Your task to perform on an android device: Add "razer deathadder" to the cart on newegg.com Image 0: 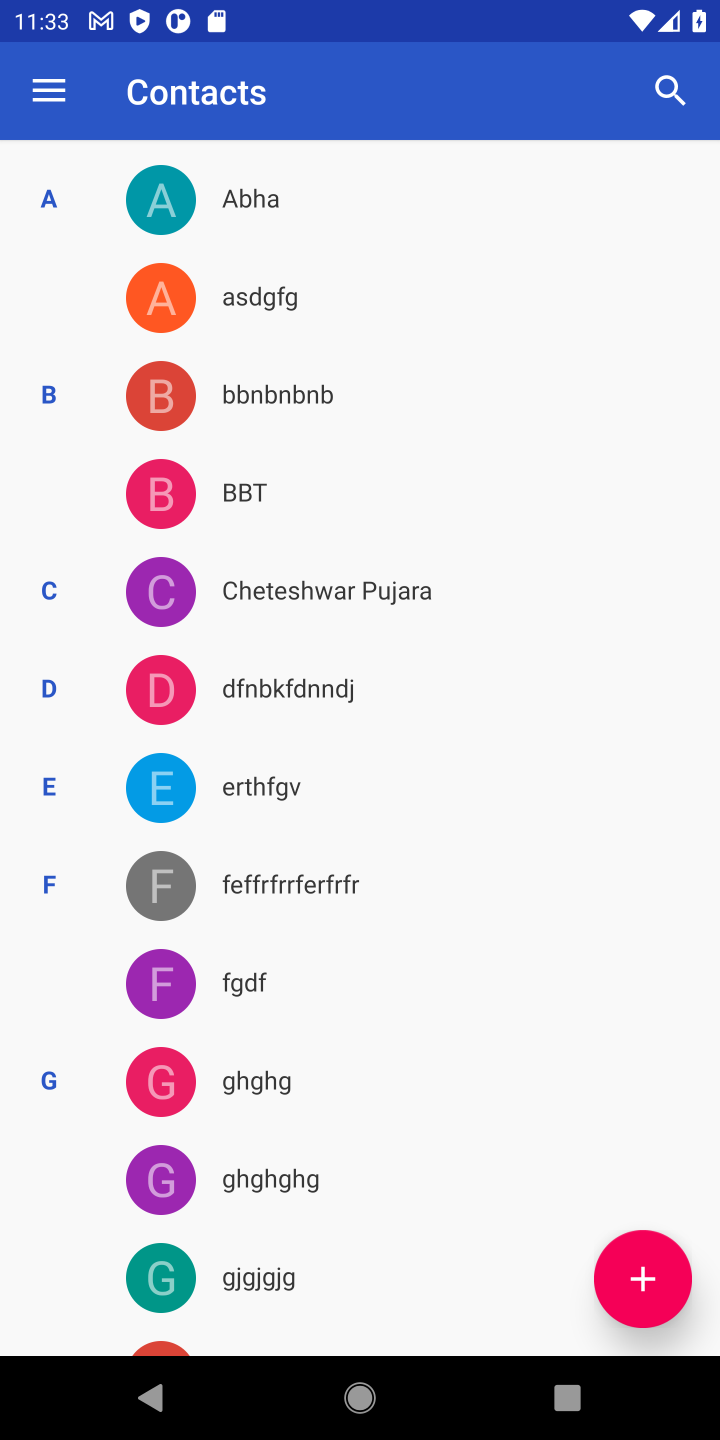
Step 0: press home button
Your task to perform on an android device: Add "razer deathadder" to the cart on newegg.com Image 1: 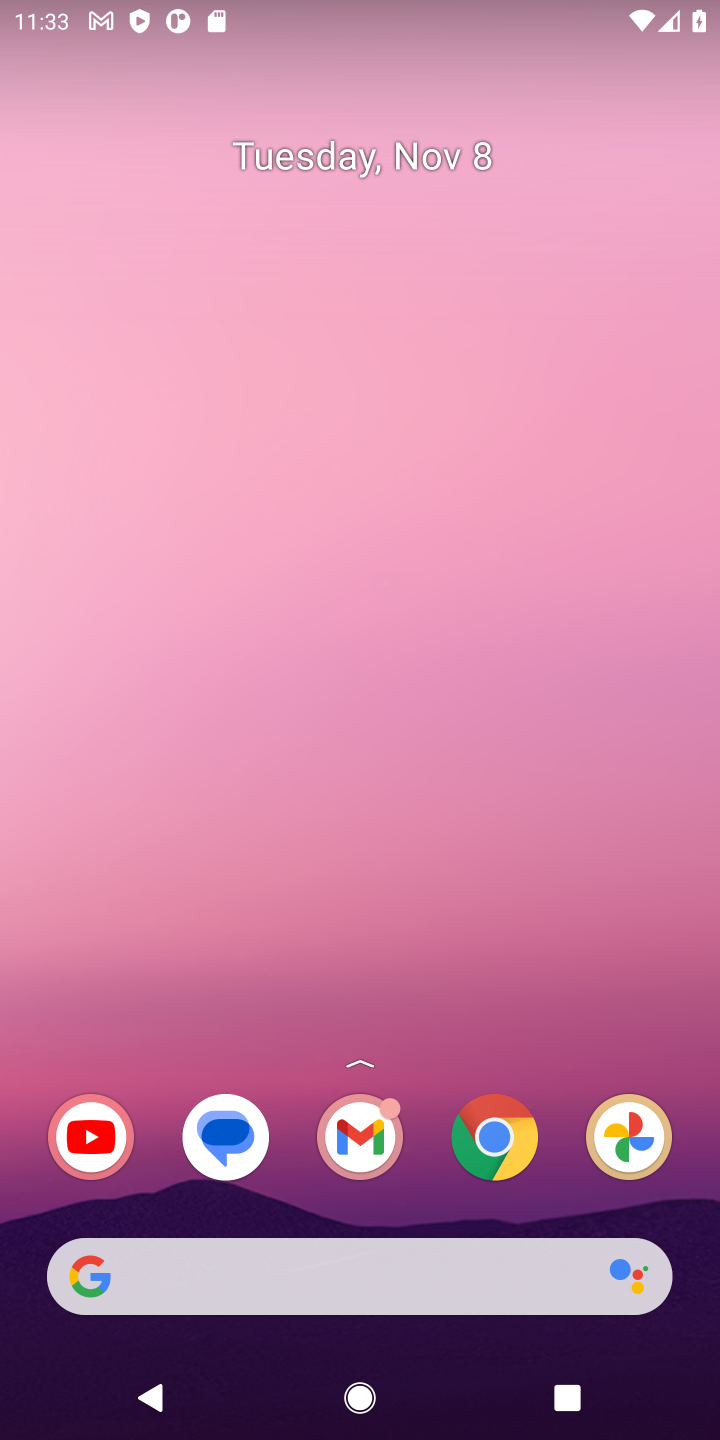
Step 1: click (496, 1141)
Your task to perform on an android device: Add "razer deathadder" to the cart on newegg.com Image 2: 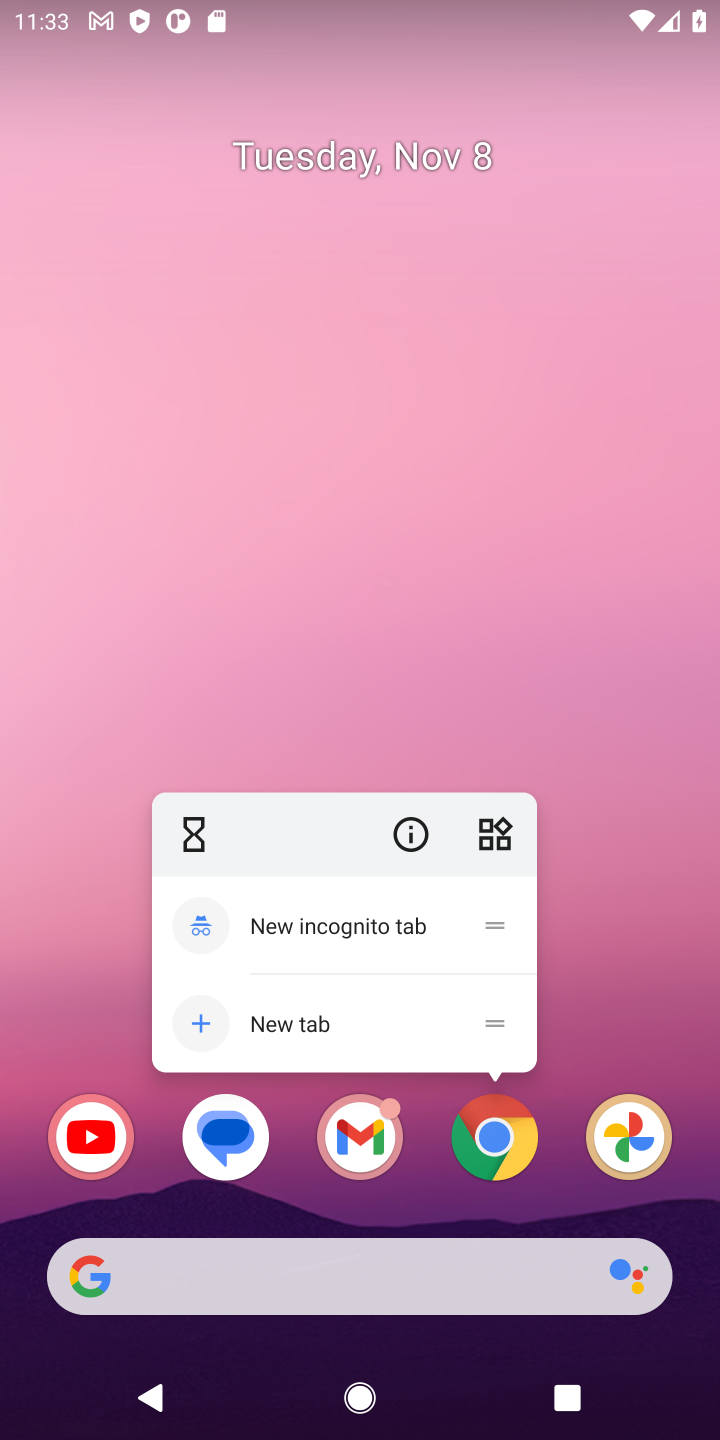
Step 2: click (496, 1141)
Your task to perform on an android device: Add "razer deathadder" to the cart on newegg.com Image 3: 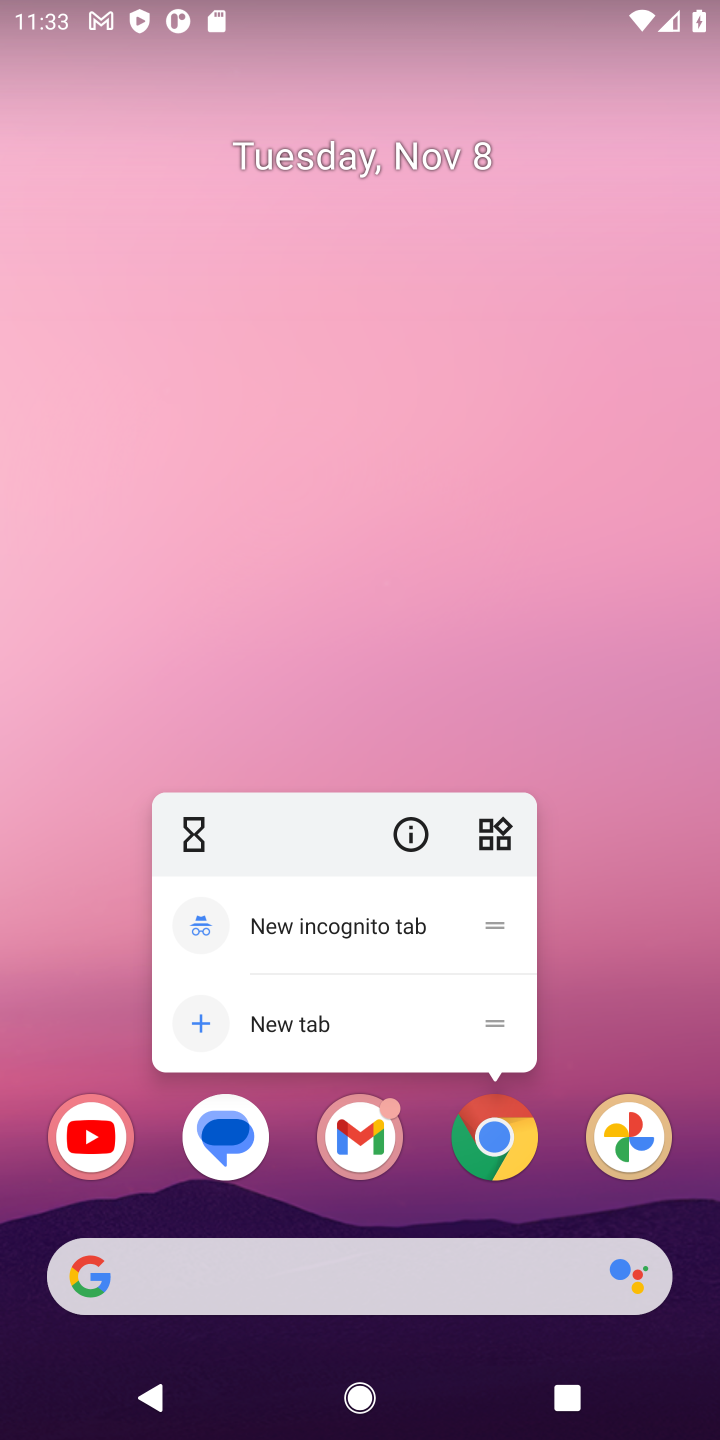
Step 3: click (496, 1136)
Your task to perform on an android device: Add "razer deathadder" to the cart on newegg.com Image 4: 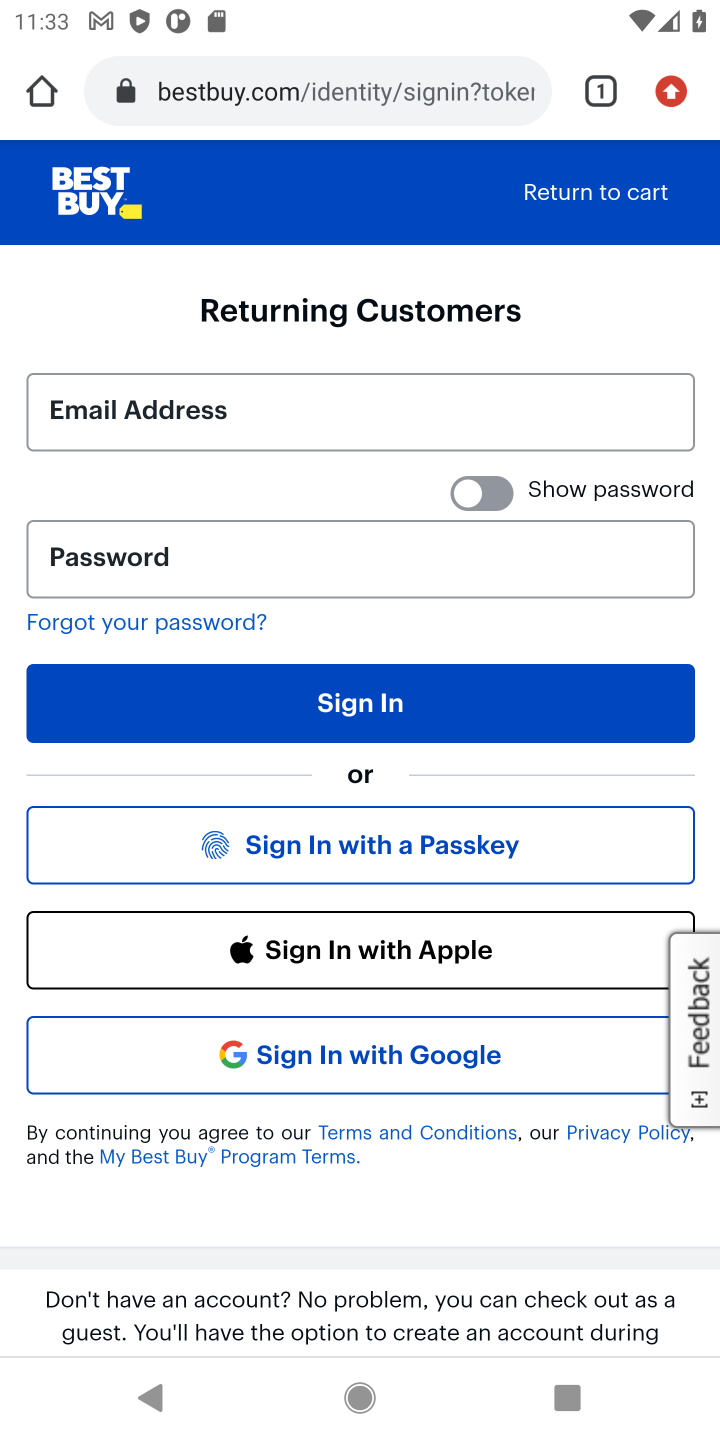
Step 4: click (333, 96)
Your task to perform on an android device: Add "razer deathadder" to the cart on newegg.com Image 5: 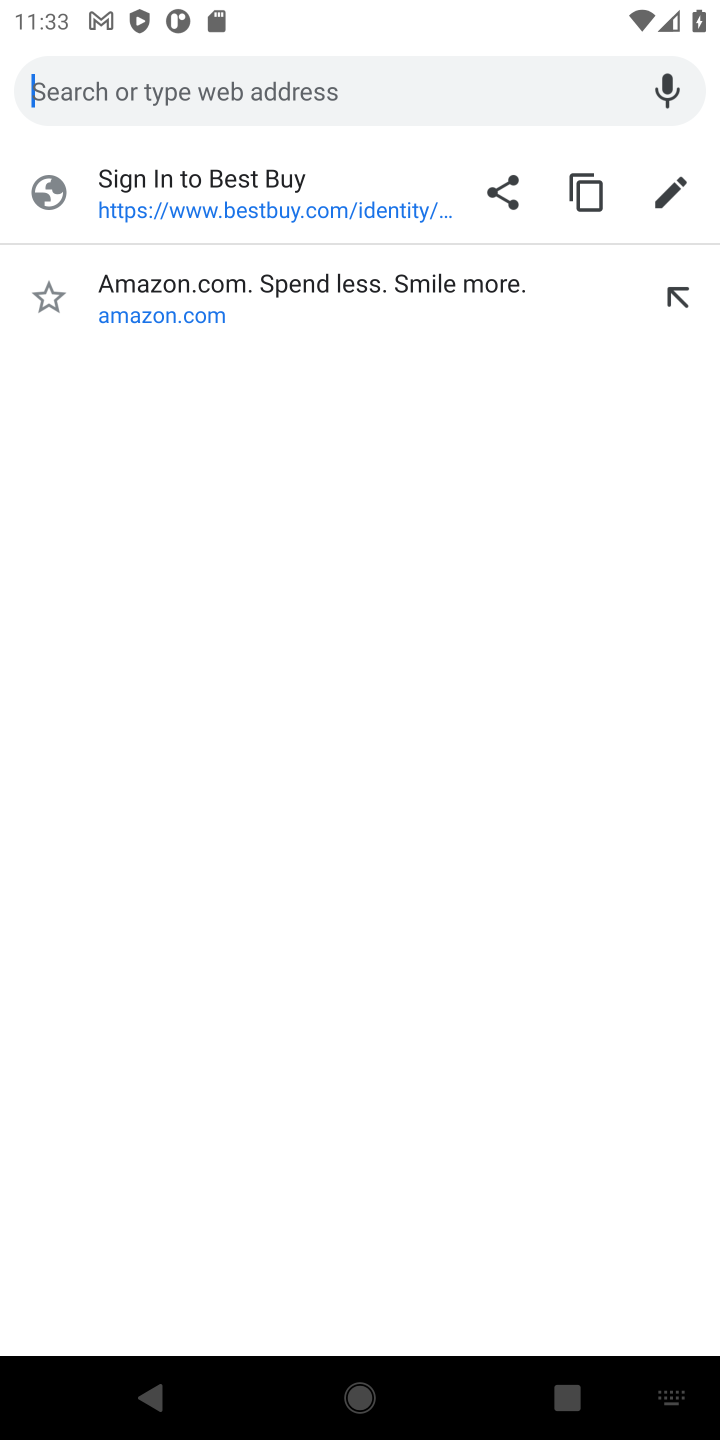
Step 5: type "newegg"
Your task to perform on an android device: Add "razer deathadder" to the cart on newegg.com Image 6: 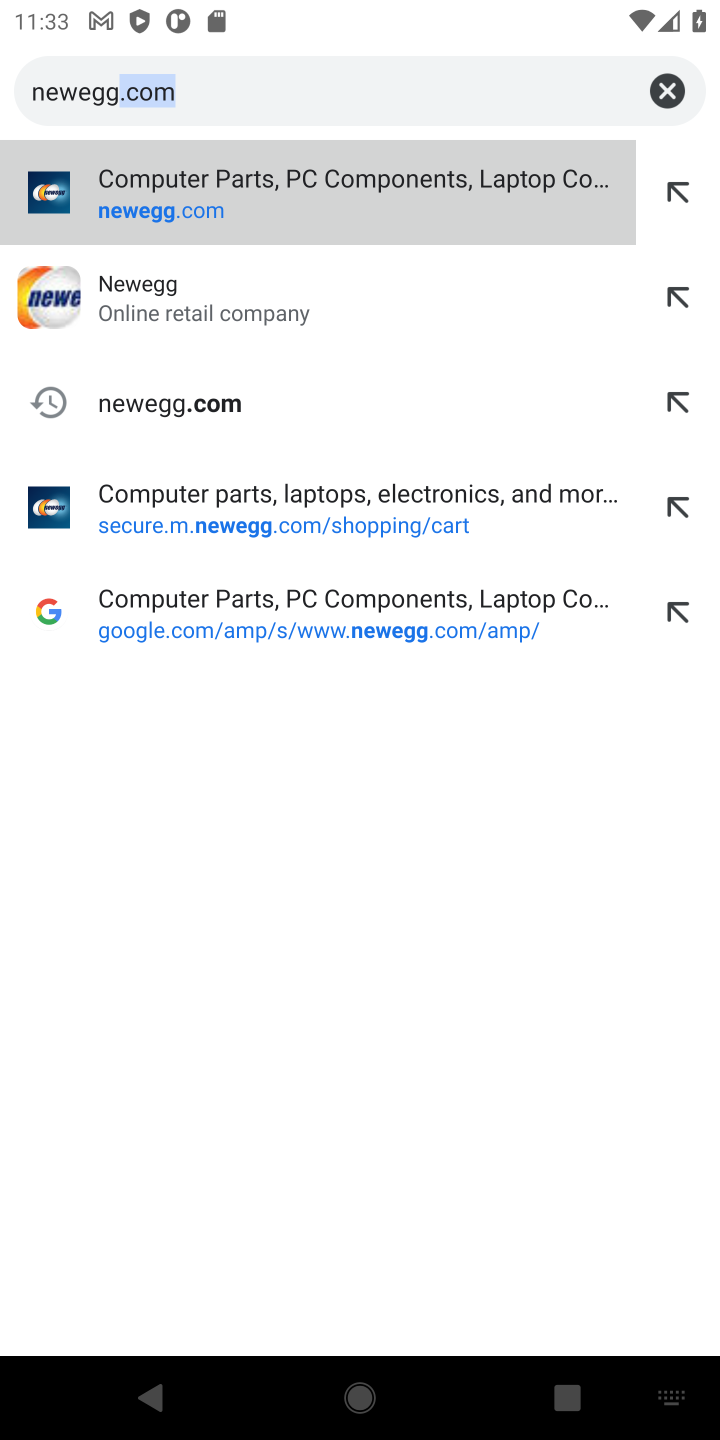
Step 6: click (225, 323)
Your task to perform on an android device: Add "razer deathadder" to the cart on newegg.com Image 7: 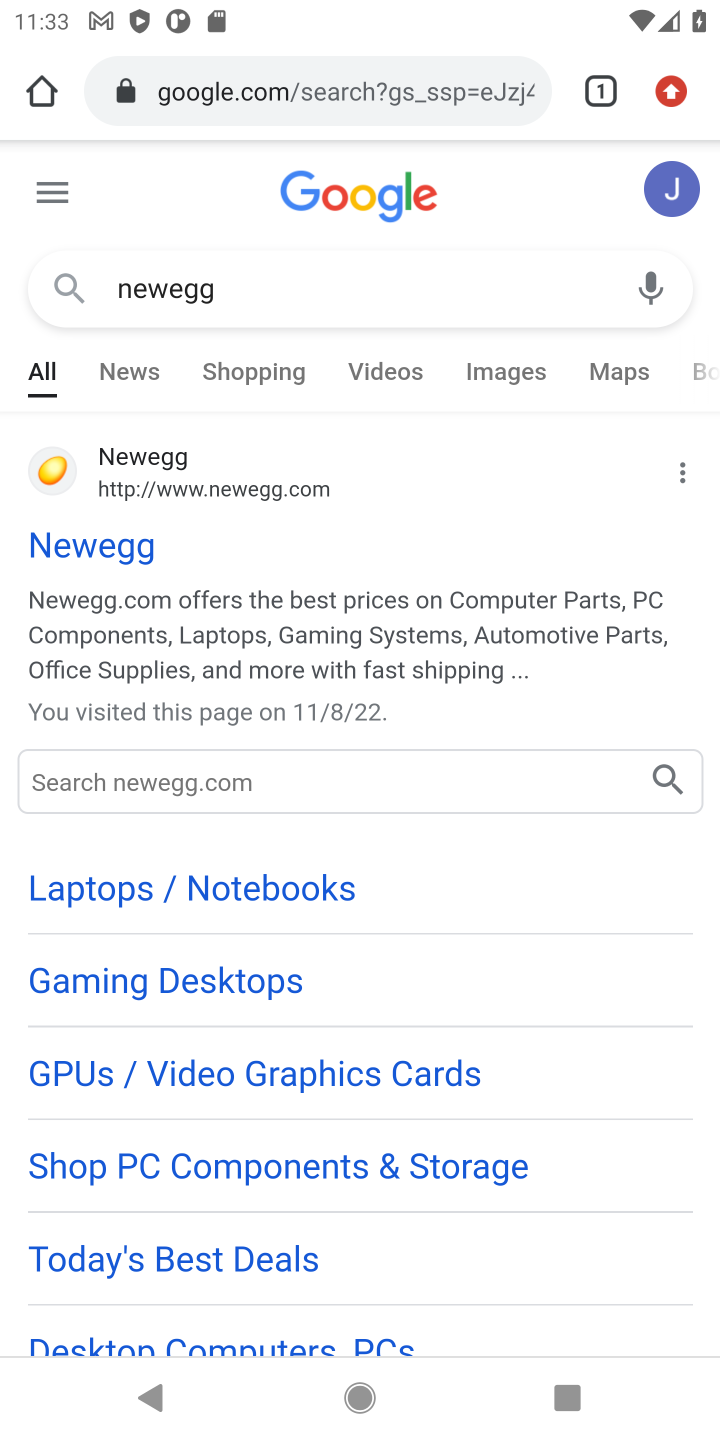
Step 7: click (124, 543)
Your task to perform on an android device: Add "razer deathadder" to the cart on newegg.com Image 8: 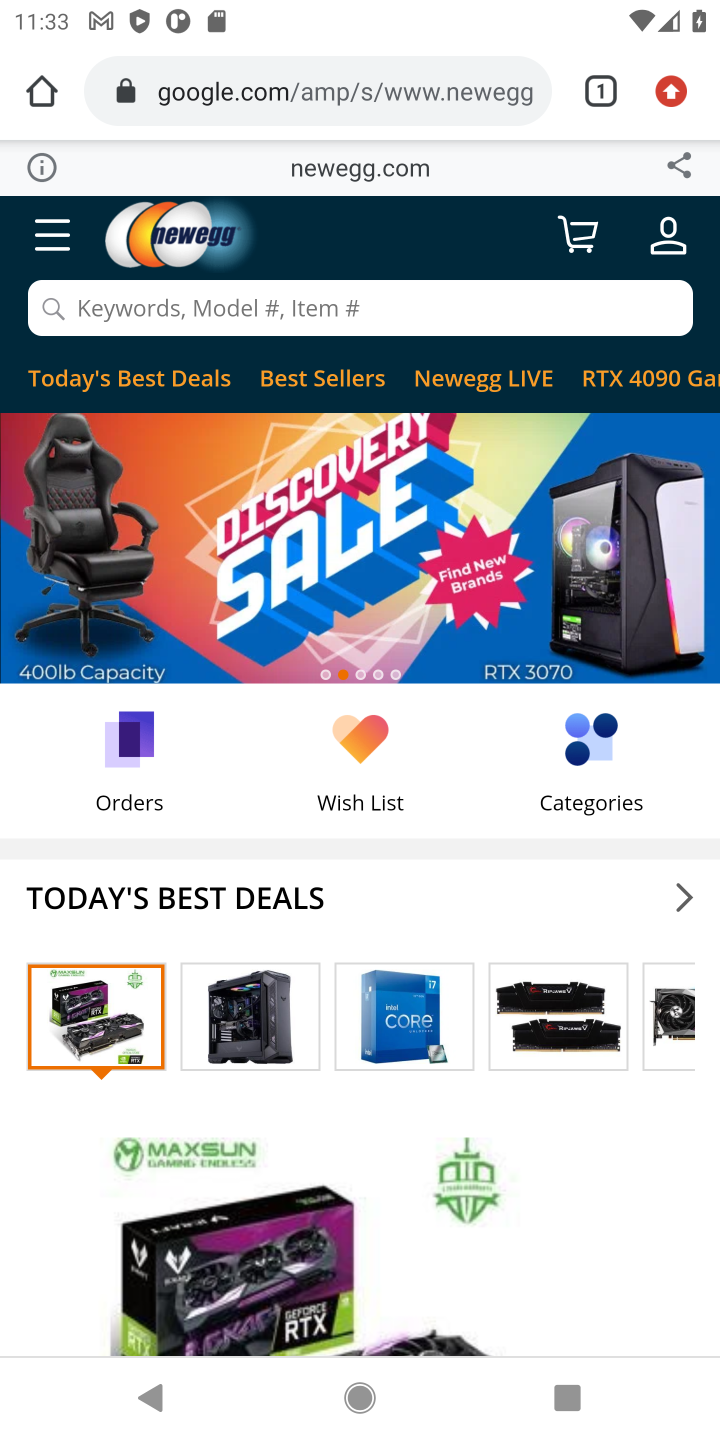
Step 8: click (326, 306)
Your task to perform on an android device: Add "razer deathadder" to the cart on newegg.com Image 9: 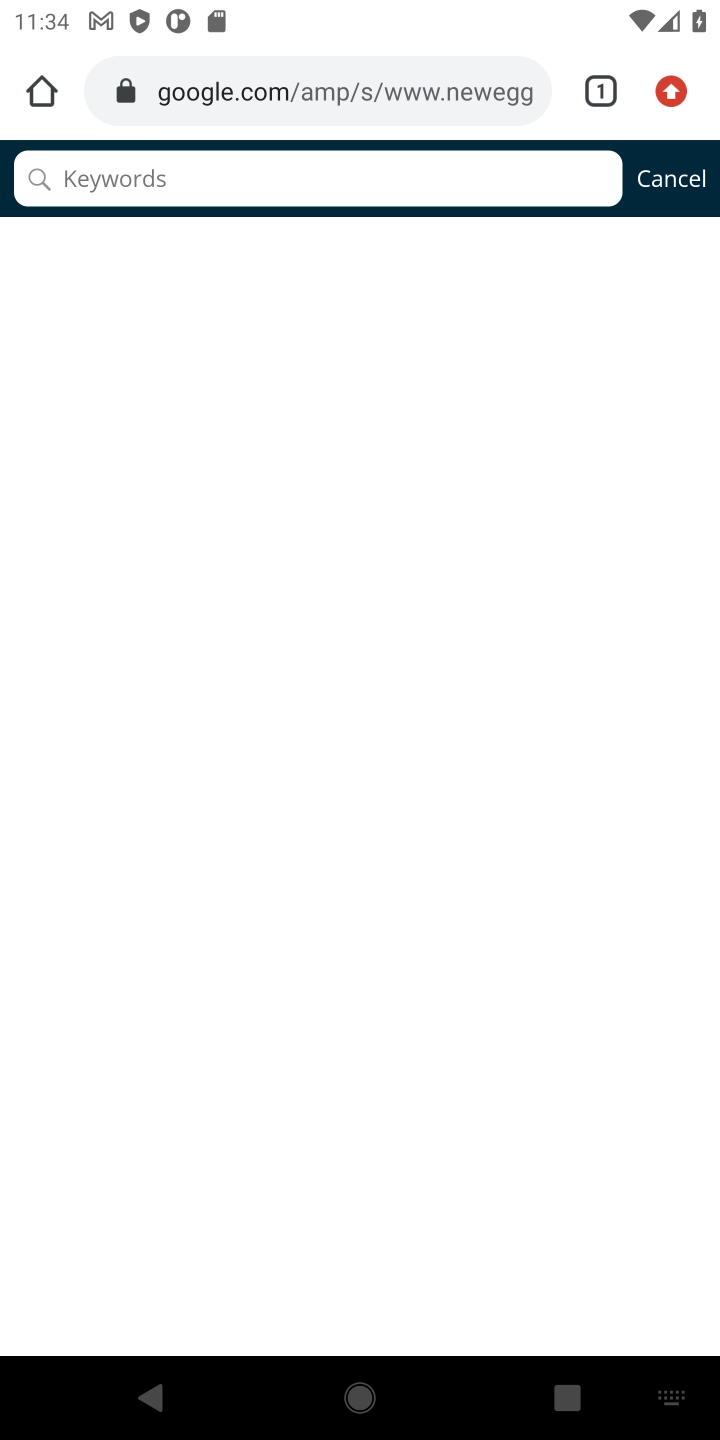
Step 9: type "razer deathadder"
Your task to perform on an android device: Add "razer deathadder" to the cart on newegg.com Image 10: 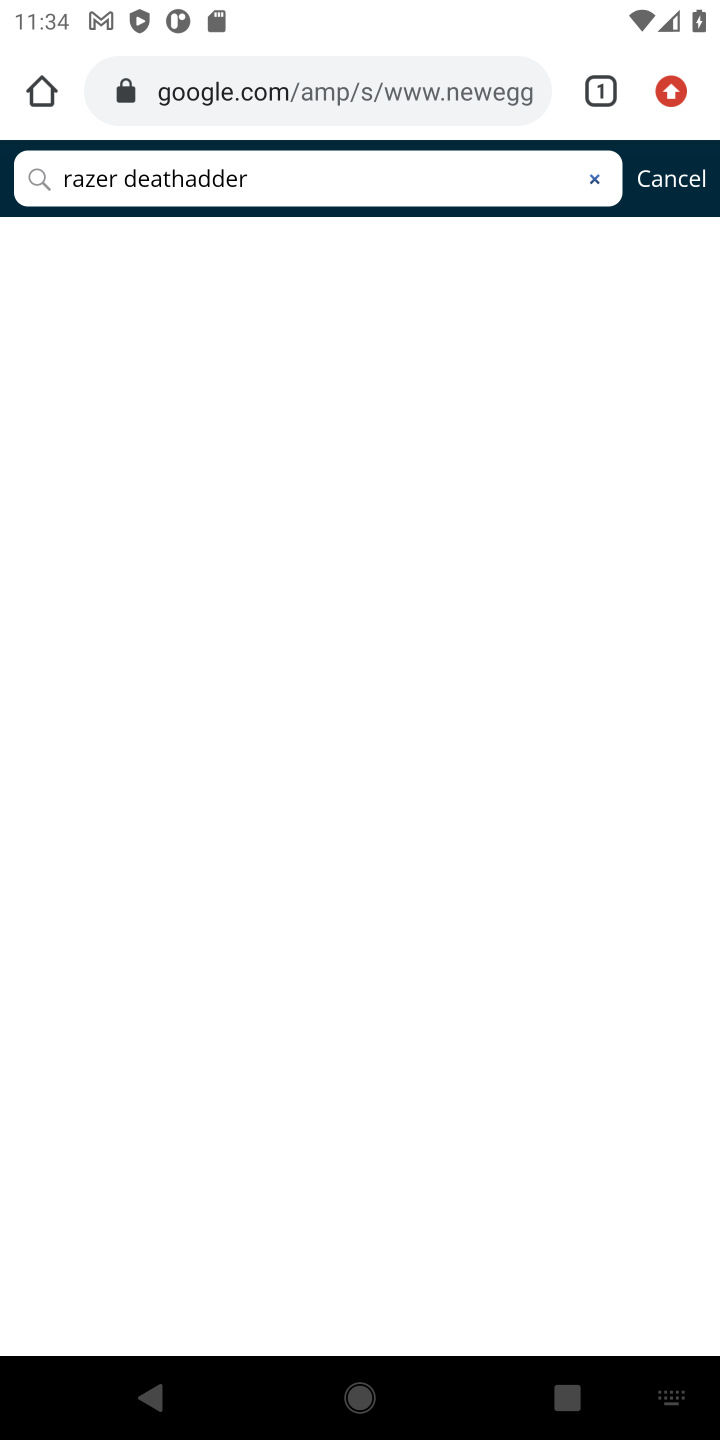
Step 10: task complete